Your task to perform on an android device: Open calendar and show me the third week of next month Image 0: 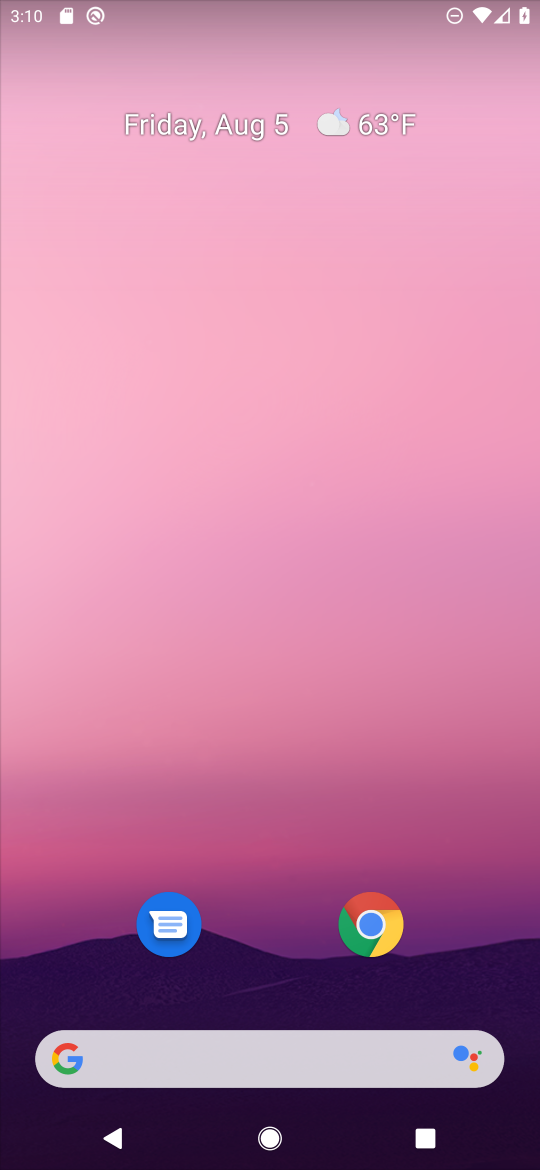
Step 0: drag from (473, 952) to (390, 174)
Your task to perform on an android device: Open calendar and show me the third week of next month Image 1: 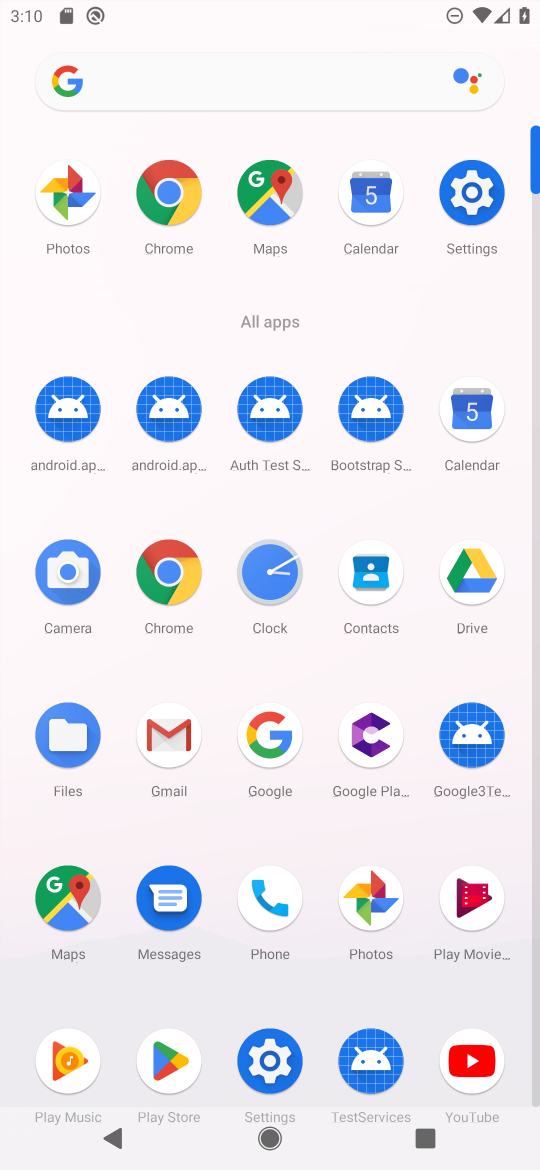
Step 1: click (465, 408)
Your task to perform on an android device: Open calendar and show me the third week of next month Image 2: 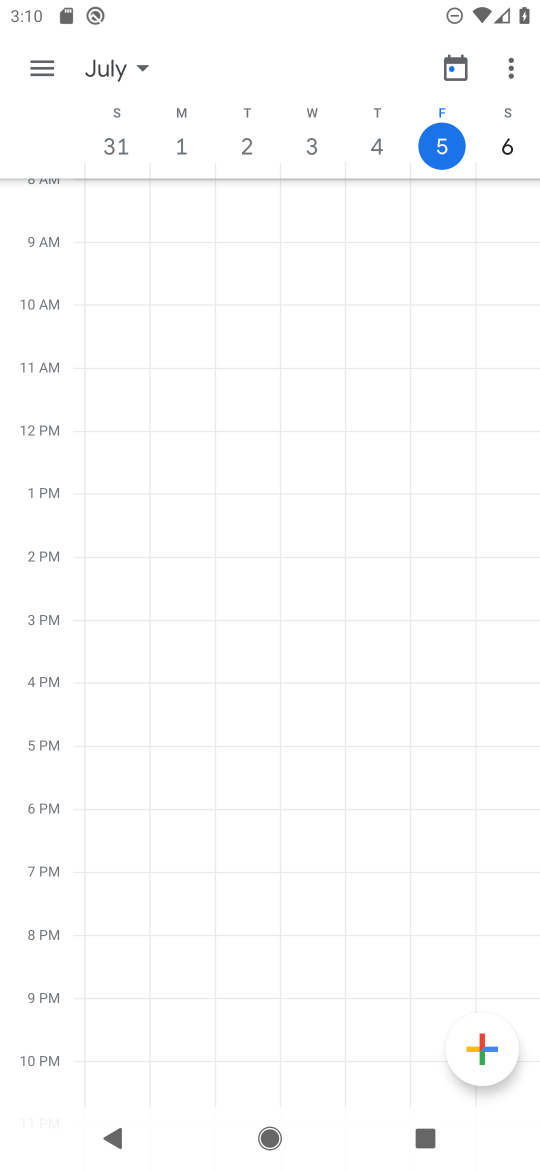
Step 2: click (101, 66)
Your task to perform on an android device: Open calendar and show me the third week of next month Image 3: 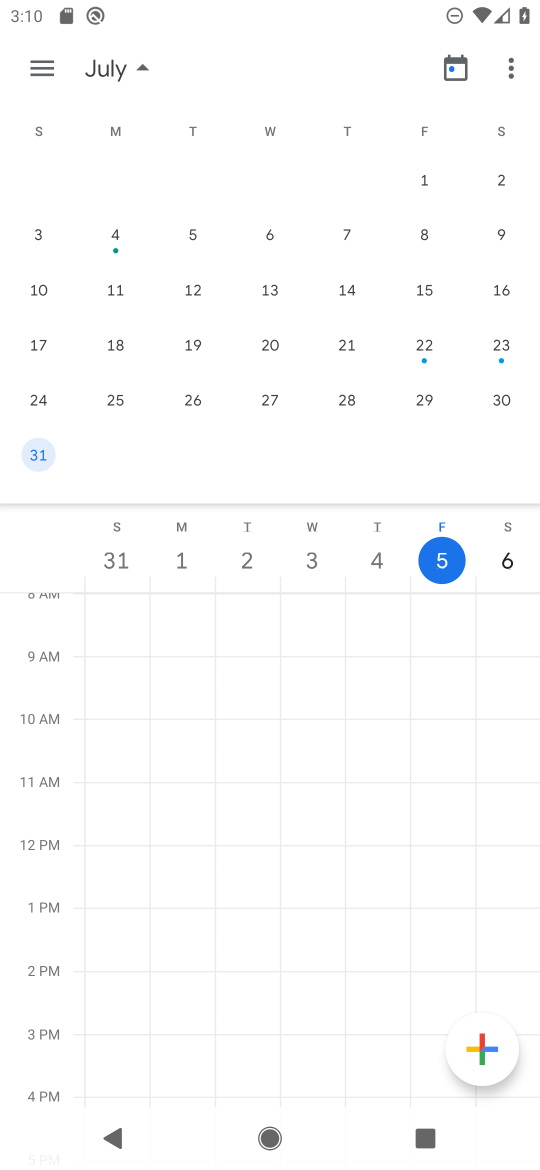
Step 3: drag from (503, 331) to (56, 374)
Your task to perform on an android device: Open calendar and show me the third week of next month Image 4: 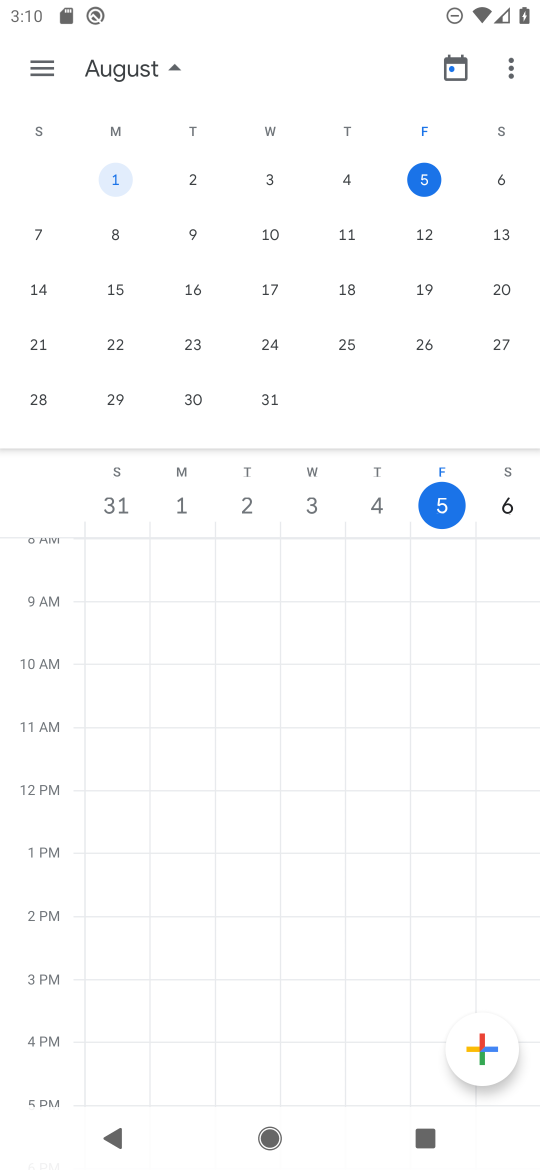
Step 4: drag from (466, 346) to (14, 356)
Your task to perform on an android device: Open calendar and show me the third week of next month Image 5: 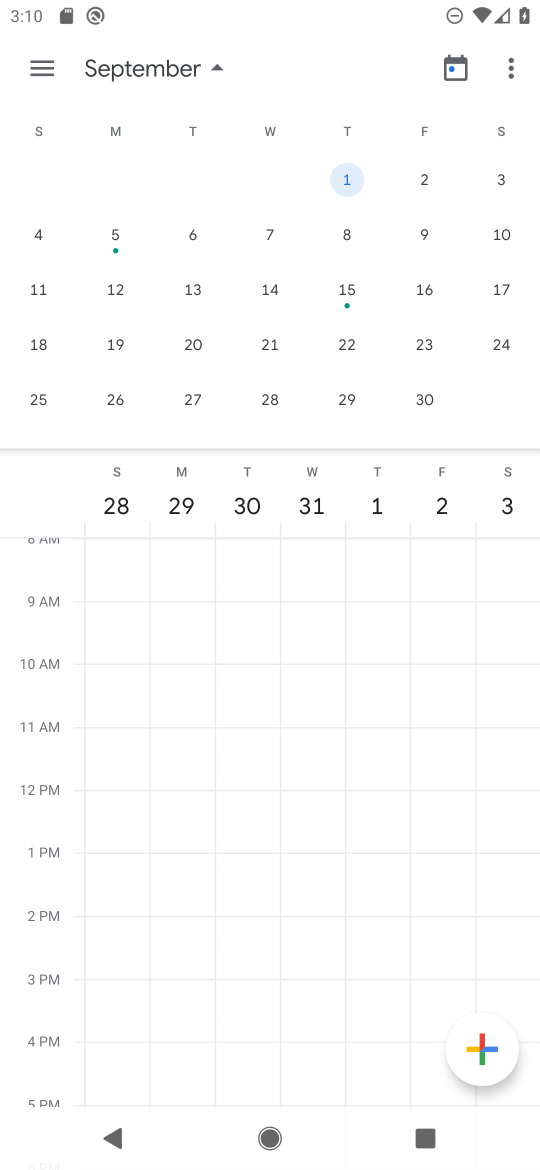
Step 5: click (187, 345)
Your task to perform on an android device: Open calendar and show me the third week of next month Image 6: 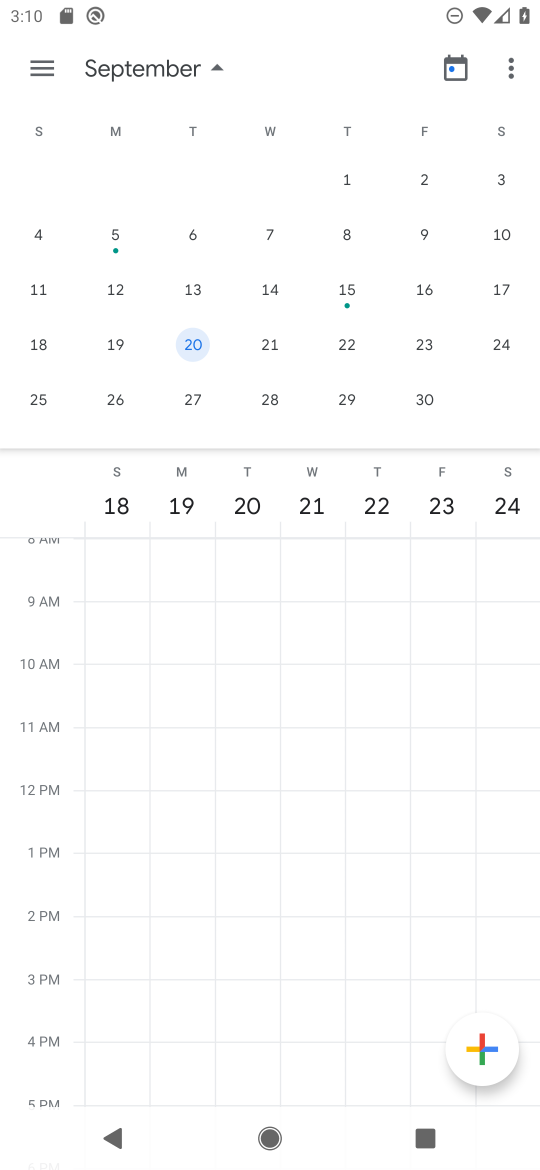
Step 6: task complete